Your task to perform on an android device: turn on wifi Image 0: 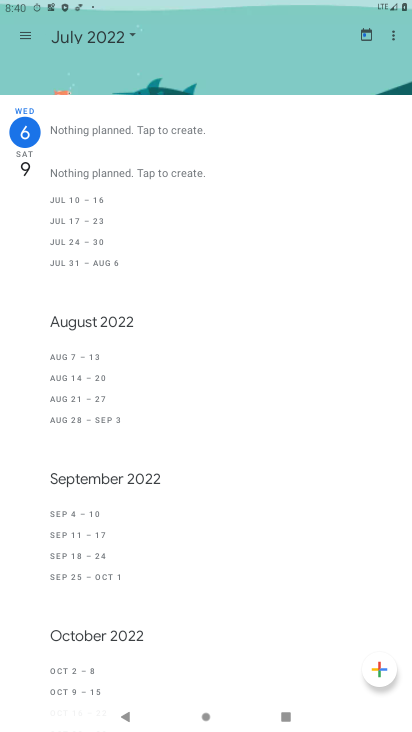
Step 0: press home button
Your task to perform on an android device: turn on wifi Image 1: 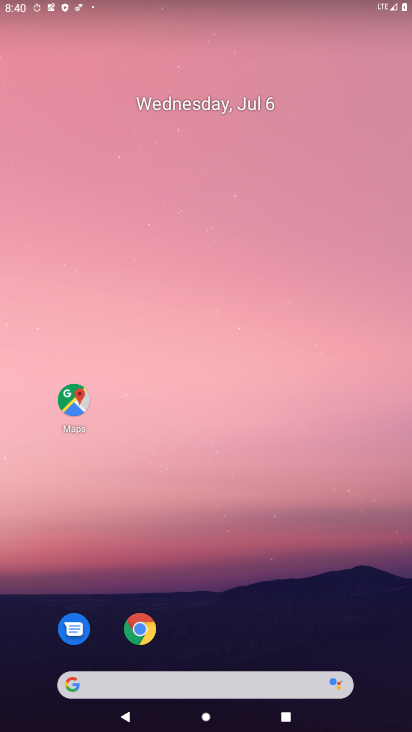
Step 1: drag from (256, 729) to (236, 83)
Your task to perform on an android device: turn on wifi Image 2: 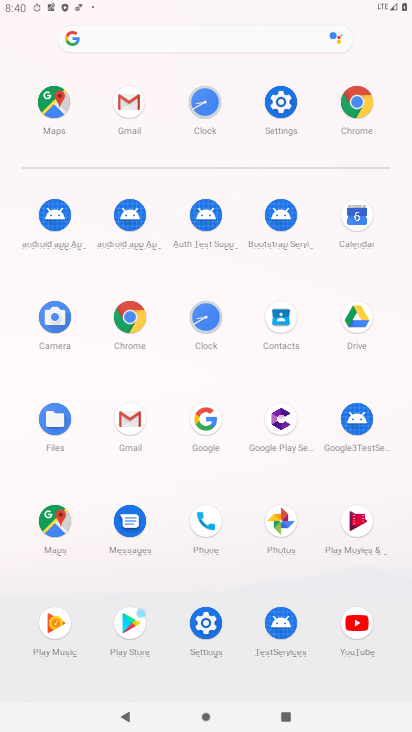
Step 2: click (279, 99)
Your task to perform on an android device: turn on wifi Image 3: 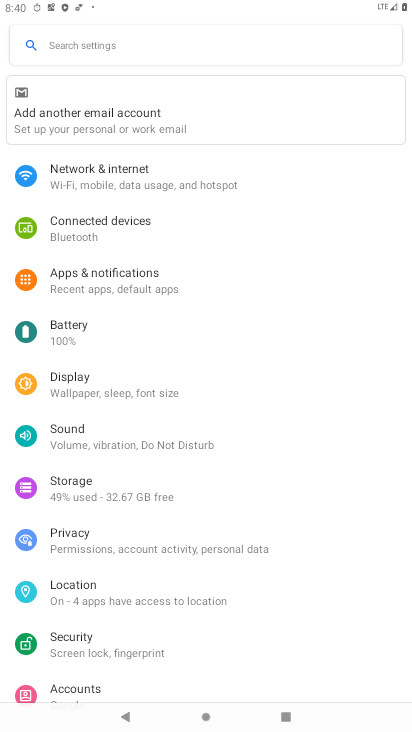
Step 3: click (90, 173)
Your task to perform on an android device: turn on wifi Image 4: 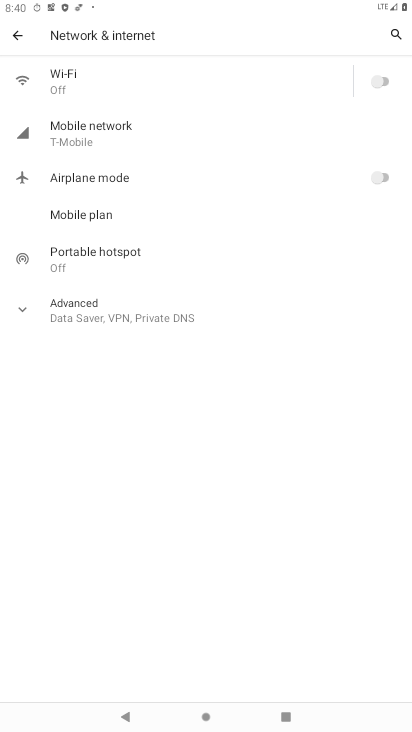
Step 4: click (383, 78)
Your task to perform on an android device: turn on wifi Image 5: 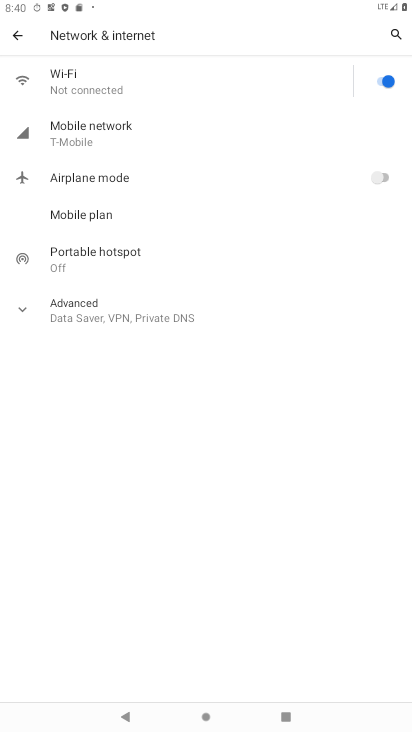
Step 5: task complete